Your task to perform on an android device: Open the phone app and click the voicemail tab. Image 0: 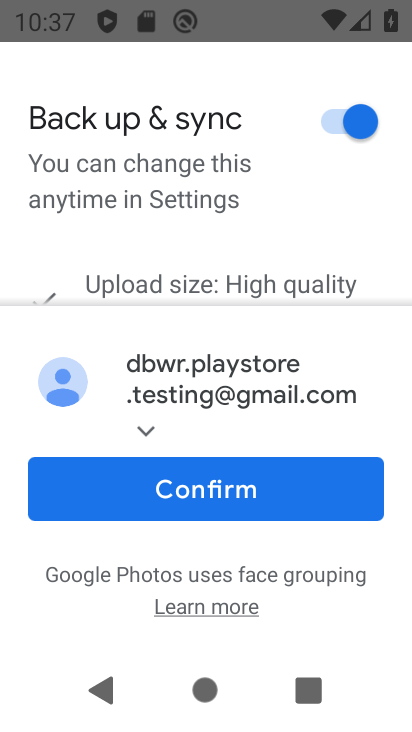
Step 0: press back button
Your task to perform on an android device: Open the phone app and click the voicemail tab. Image 1: 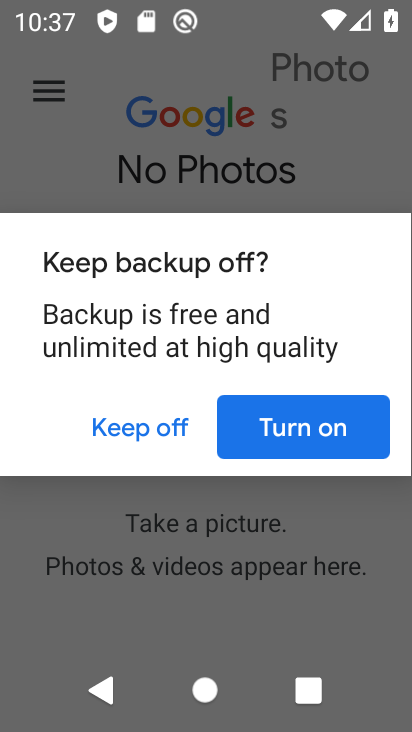
Step 1: press home button
Your task to perform on an android device: Open the phone app and click the voicemail tab. Image 2: 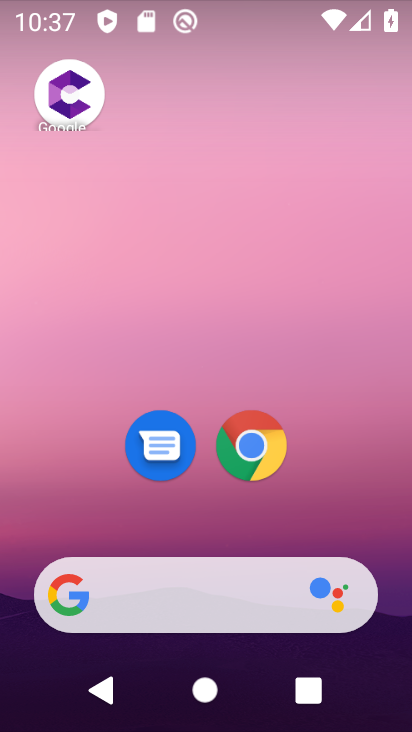
Step 2: drag from (186, 513) to (258, 42)
Your task to perform on an android device: Open the phone app and click the voicemail tab. Image 3: 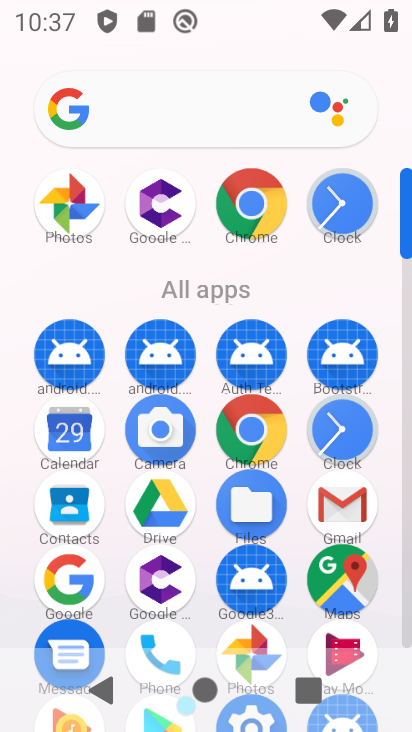
Step 3: click (149, 640)
Your task to perform on an android device: Open the phone app and click the voicemail tab. Image 4: 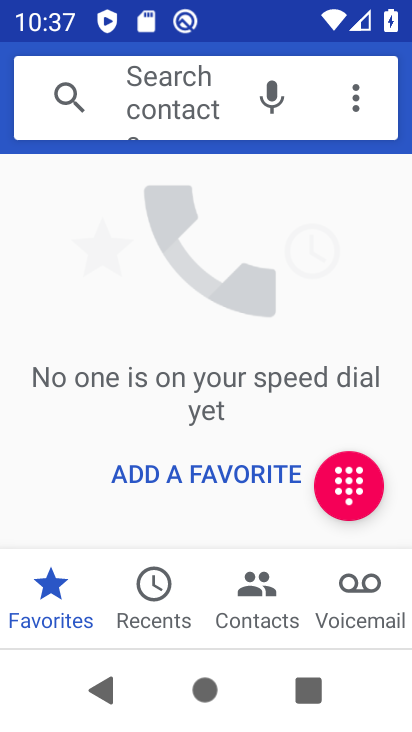
Step 4: click (373, 609)
Your task to perform on an android device: Open the phone app and click the voicemail tab. Image 5: 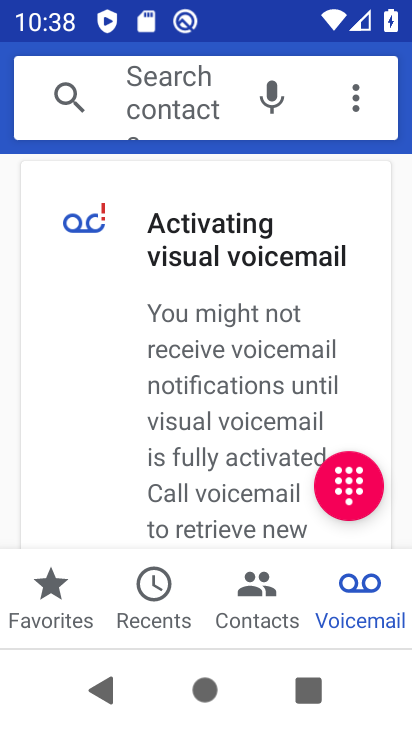
Step 5: task complete